Your task to perform on an android device: What's on my calendar today? Image 0: 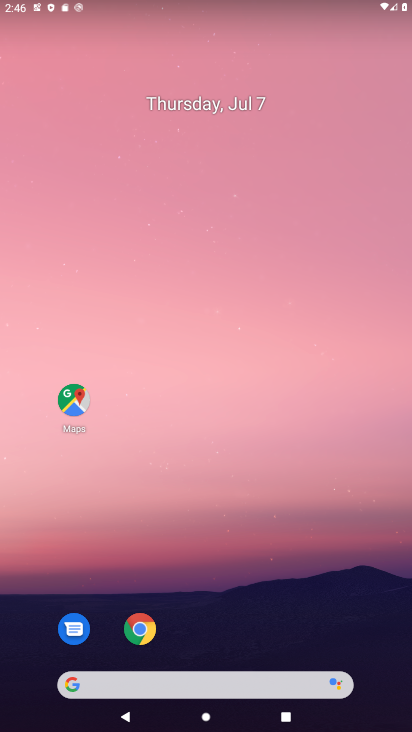
Step 0: click (238, 103)
Your task to perform on an android device: What's on my calendar today? Image 1: 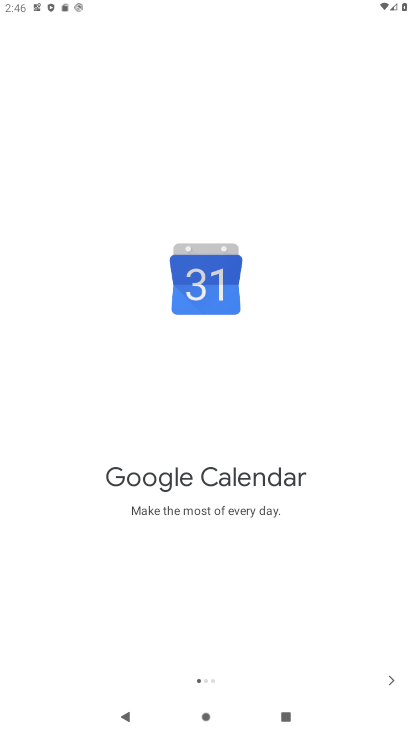
Step 1: click (394, 681)
Your task to perform on an android device: What's on my calendar today? Image 2: 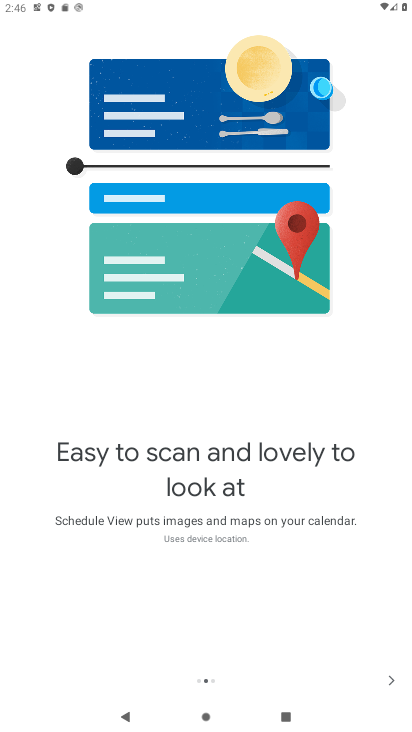
Step 2: click (390, 674)
Your task to perform on an android device: What's on my calendar today? Image 3: 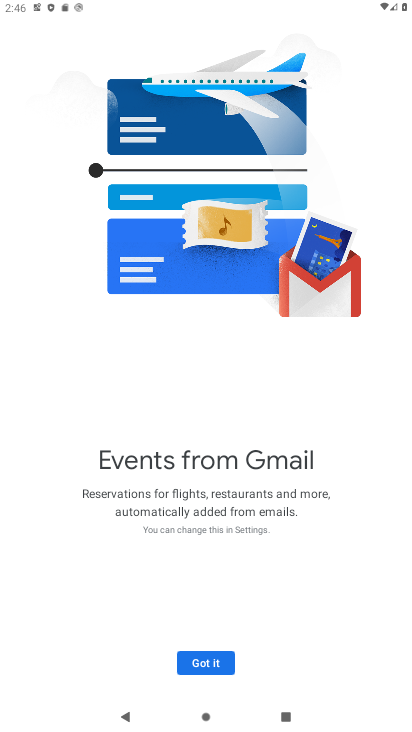
Step 3: click (192, 659)
Your task to perform on an android device: What's on my calendar today? Image 4: 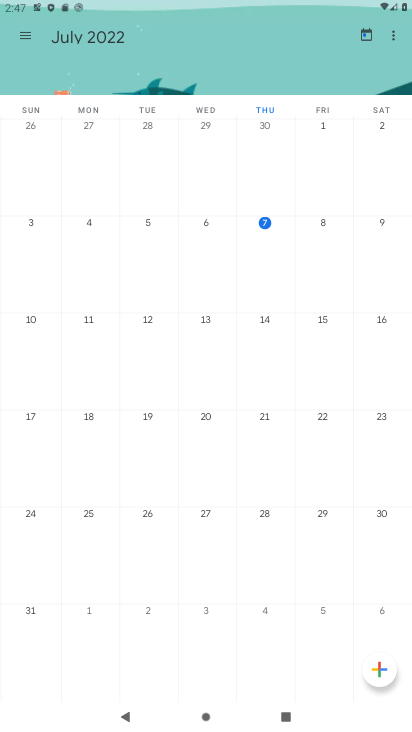
Step 4: task complete